Your task to perform on an android device: Open calendar and show me the fourth week of next month Image 0: 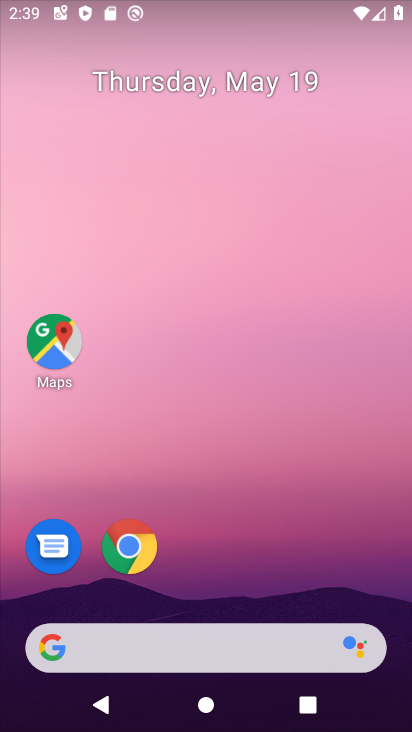
Step 0: drag from (258, 586) to (253, 119)
Your task to perform on an android device: Open calendar and show me the fourth week of next month Image 1: 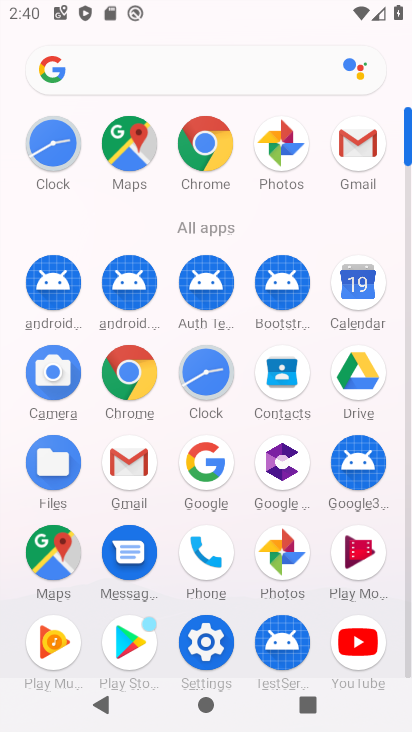
Step 1: click (358, 286)
Your task to perform on an android device: Open calendar and show me the fourth week of next month Image 2: 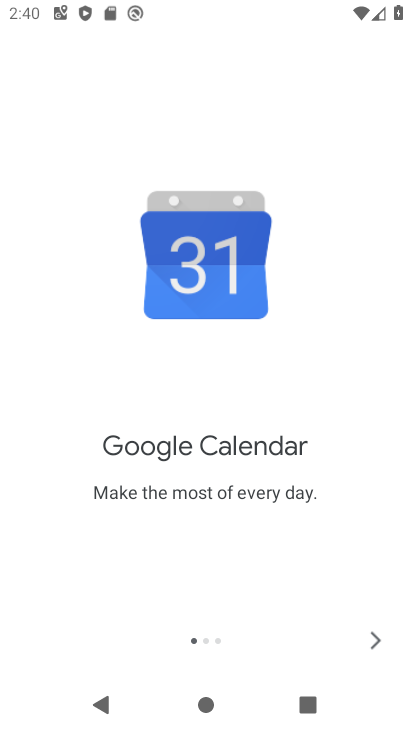
Step 2: click (378, 643)
Your task to perform on an android device: Open calendar and show me the fourth week of next month Image 3: 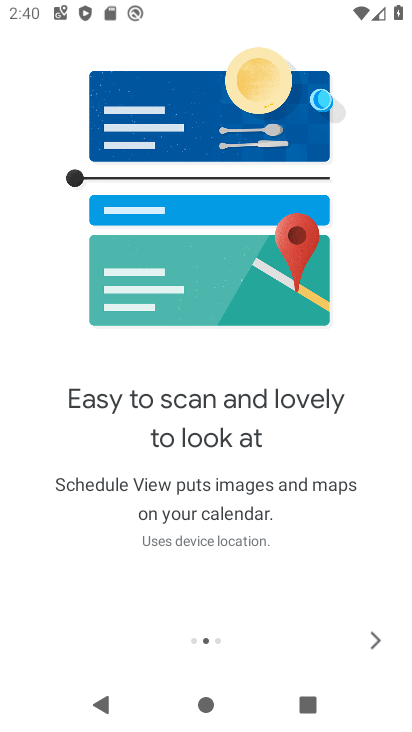
Step 3: click (378, 643)
Your task to perform on an android device: Open calendar and show me the fourth week of next month Image 4: 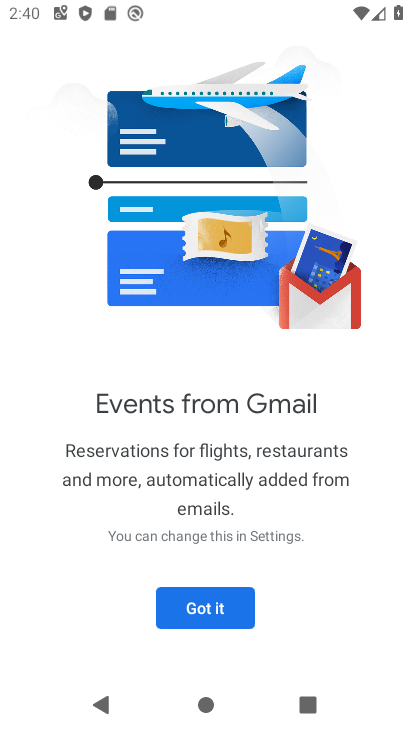
Step 4: click (214, 613)
Your task to perform on an android device: Open calendar and show me the fourth week of next month Image 5: 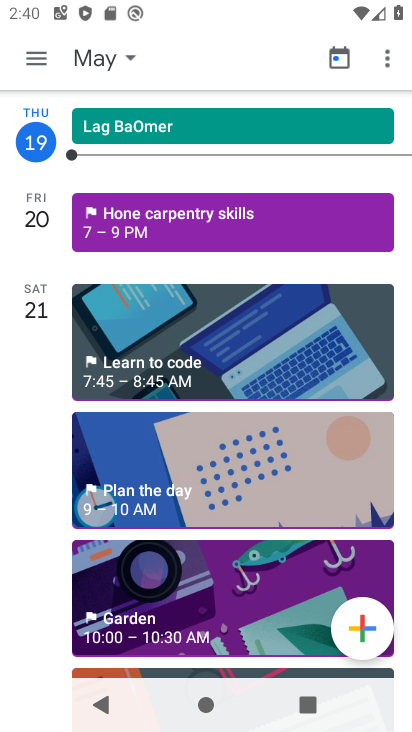
Step 5: click (130, 58)
Your task to perform on an android device: Open calendar and show me the fourth week of next month Image 6: 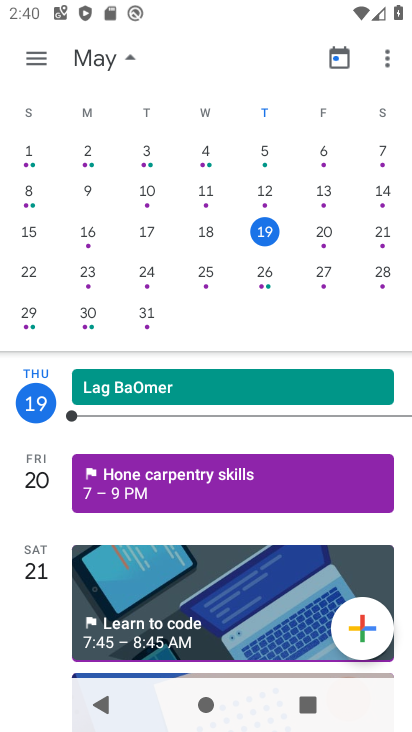
Step 6: drag from (361, 245) to (75, 244)
Your task to perform on an android device: Open calendar and show me the fourth week of next month Image 7: 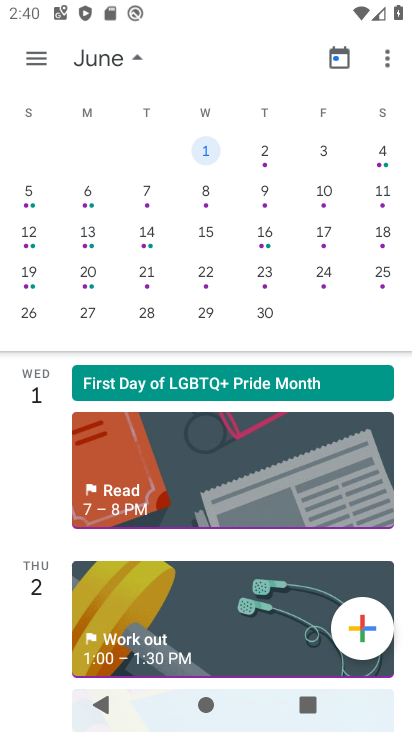
Step 7: click (86, 301)
Your task to perform on an android device: Open calendar and show me the fourth week of next month Image 8: 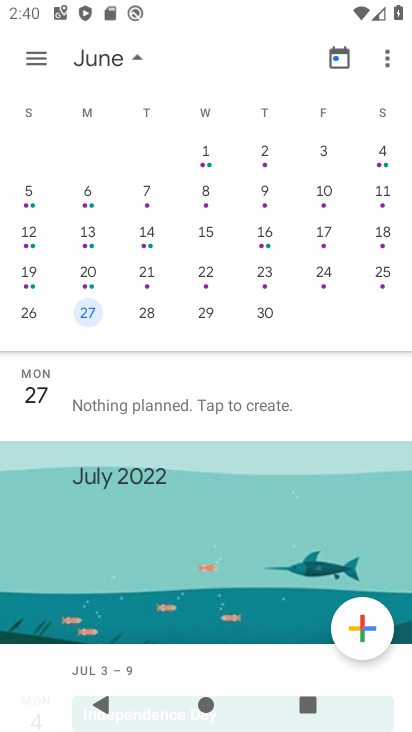
Step 8: click (39, 57)
Your task to perform on an android device: Open calendar and show me the fourth week of next month Image 9: 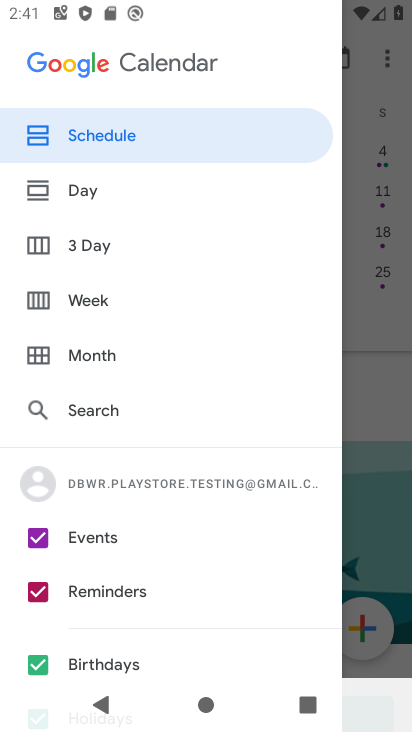
Step 9: click (101, 300)
Your task to perform on an android device: Open calendar and show me the fourth week of next month Image 10: 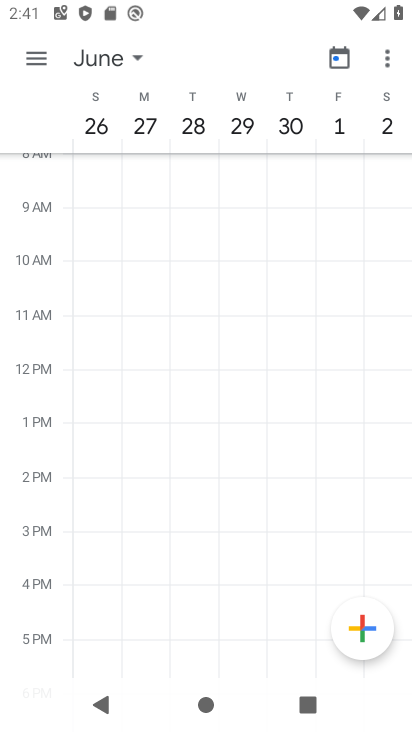
Step 10: task complete